Your task to perform on an android device: Open Chrome and go to the settings page Image 0: 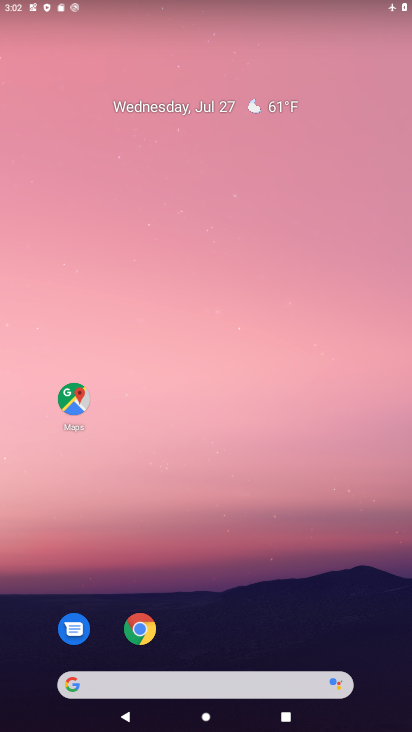
Step 0: click (139, 630)
Your task to perform on an android device: Open Chrome and go to the settings page Image 1: 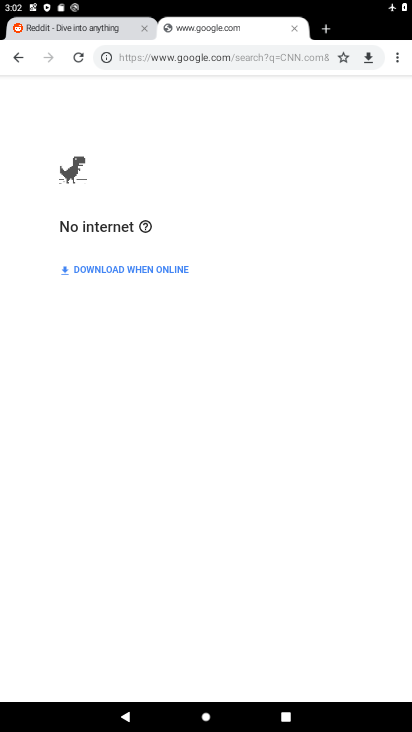
Step 1: click (397, 56)
Your task to perform on an android device: Open Chrome and go to the settings page Image 2: 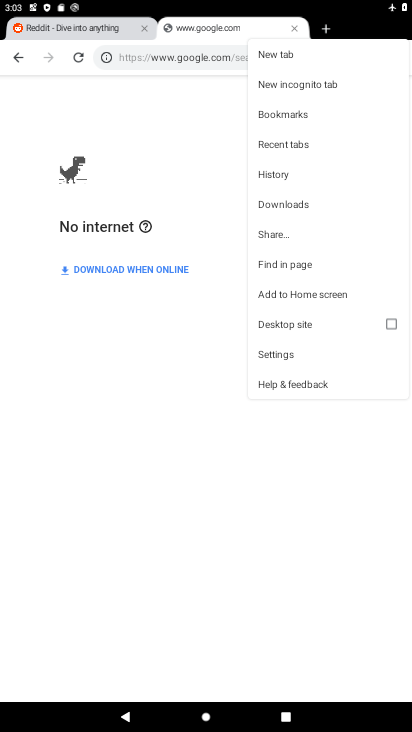
Step 2: click (280, 357)
Your task to perform on an android device: Open Chrome and go to the settings page Image 3: 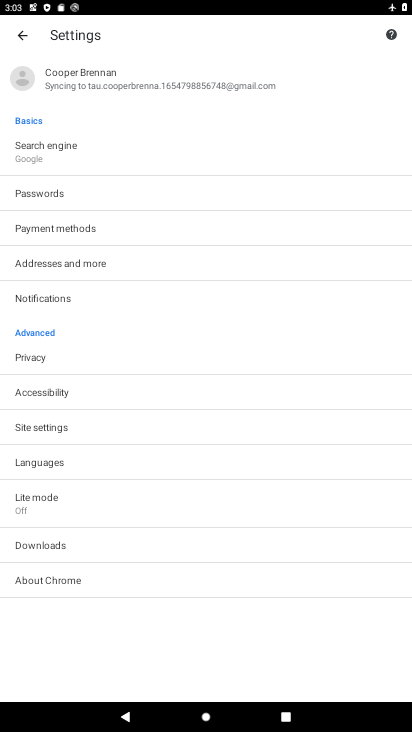
Step 3: task complete